Your task to perform on an android device: choose inbox layout in the gmail app Image 0: 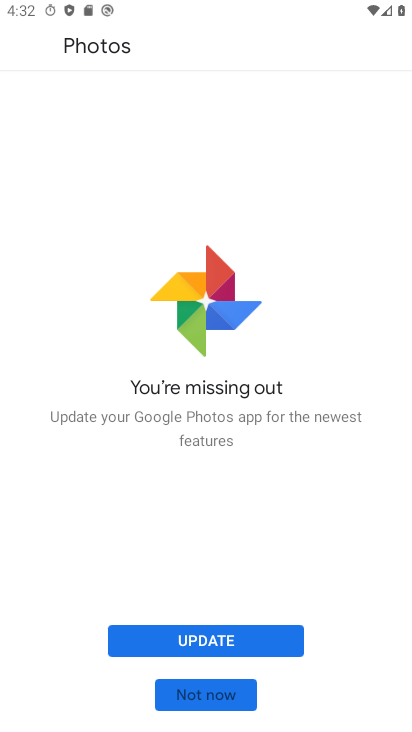
Step 0: press back button
Your task to perform on an android device: choose inbox layout in the gmail app Image 1: 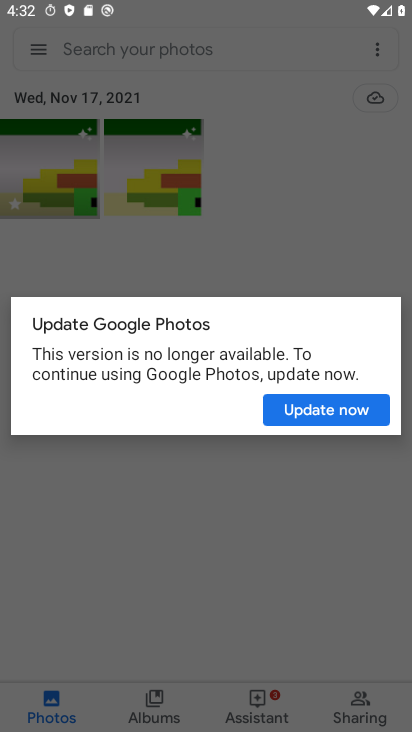
Step 1: press home button
Your task to perform on an android device: choose inbox layout in the gmail app Image 2: 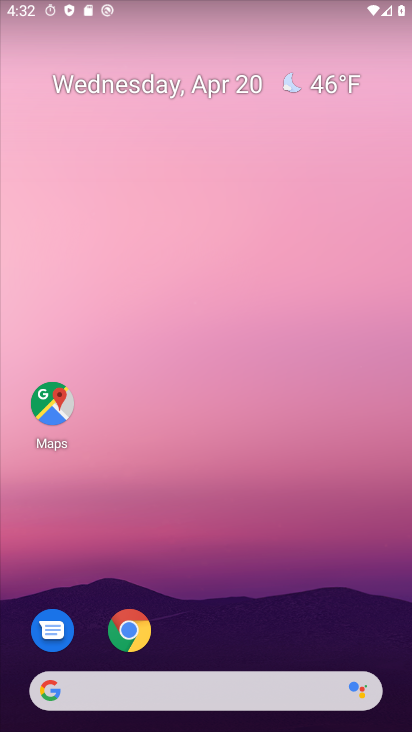
Step 2: drag from (196, 670) to (235, 359)
Your task to perform on an android device: choose inbox layout in the gmail app Image 3: 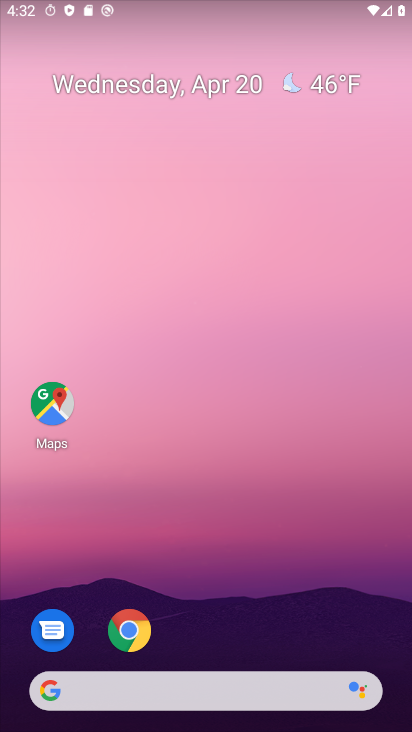
Step 3: drag from (190, 641) to (251, 343)
Your task to perform on an android device: choose inbox layout in the gmail app Image 4: 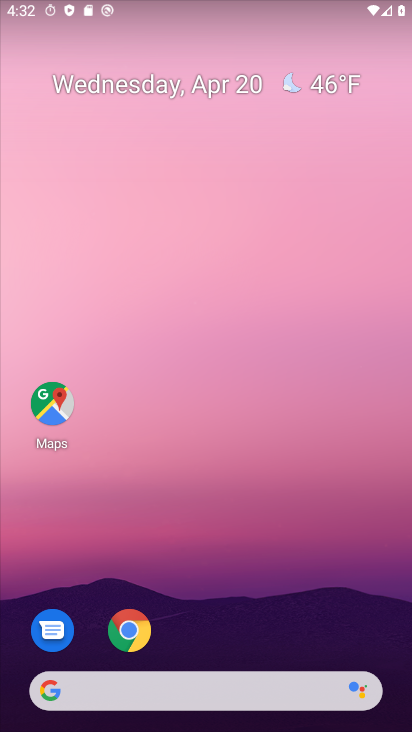
Step 4: drag from (221, 665) to (372, 20)
Your task to perform on an android device: choose inbox layout in the gmail app Image 5: 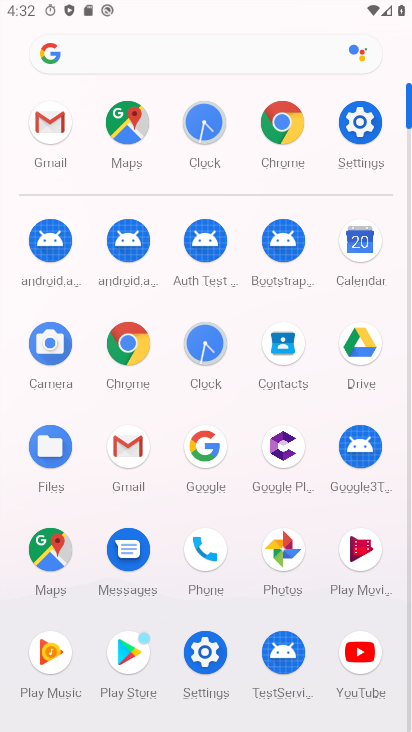
Step 5: click (132, 454)
Your task to perform on an android device: choose inbox layout in the gmail app Image 6: 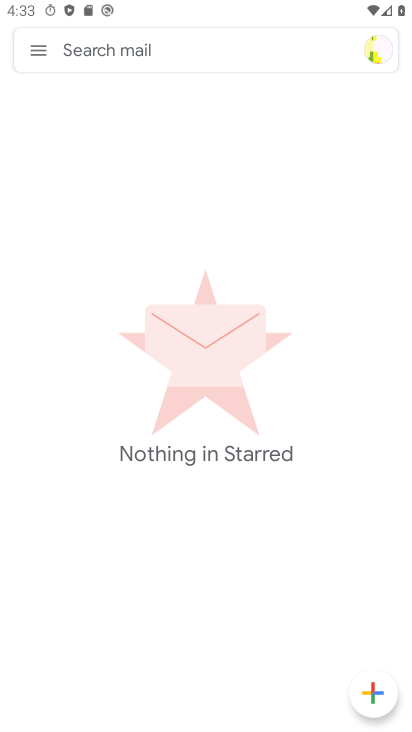
Step 6: click (44, 46)
Your task to perform on an android device: choose inbox layout in the gmail app Image 7: 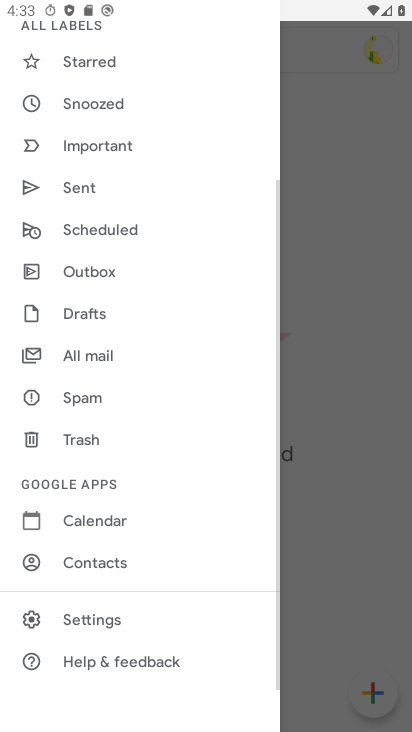
Step 7: click (90, 618)
Your task to perform on an android device: choose inbox layout in the gmail app Image 8: 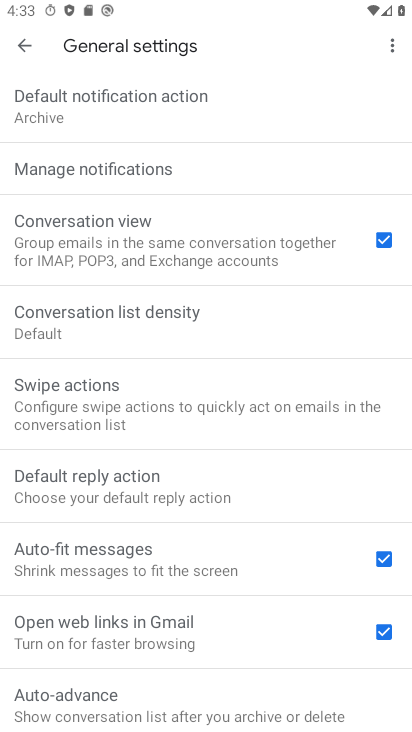
Step 8: click (13, 48)
Your task to perform on an android device: choose inbox layout in the gmail app Image 9: 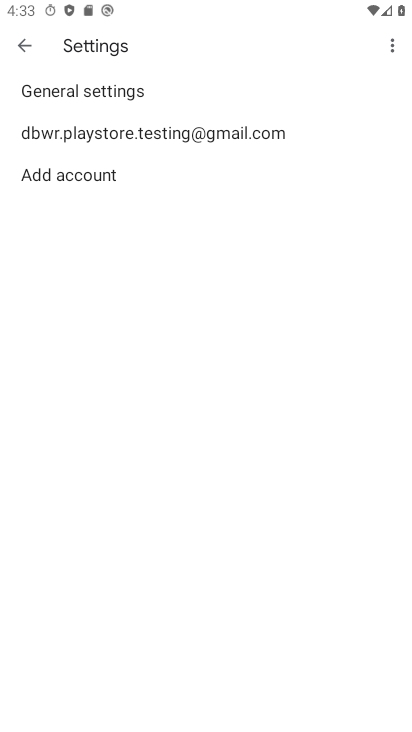
Step 9: click (69, 131)
Your task to perform on an android device: choose inbox layout in the gmail app Image 10: 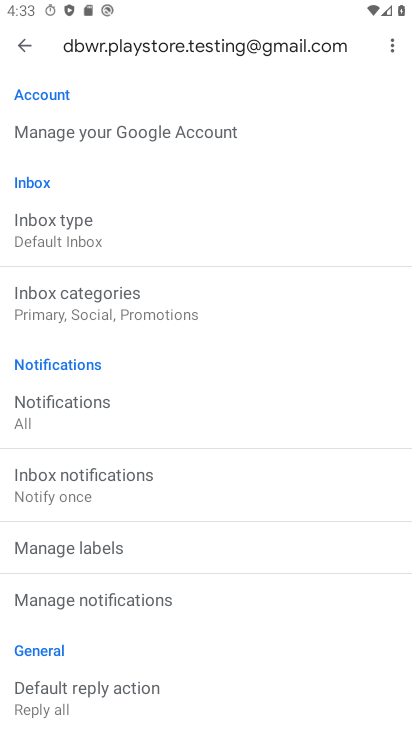
Step 10: click (59, 236)
Your task to perform on an android device: choose inbox layout in the gmail app Image 11: 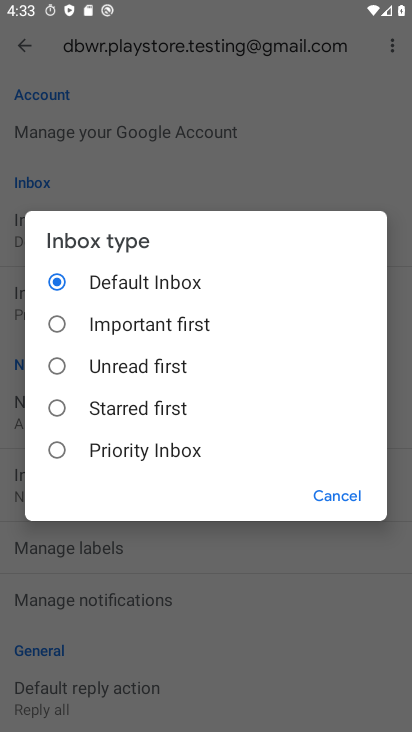
Step 11: click (50, 448)
Your task to perform on an android device: choose inbox layout in the gmail app Image 12: 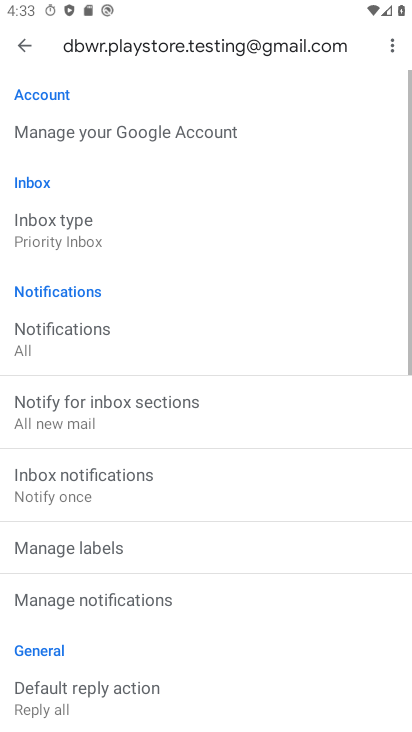
Step 12: task complete